Your task to perform on an android device: find snoozed emails in the gmail app Image 0: 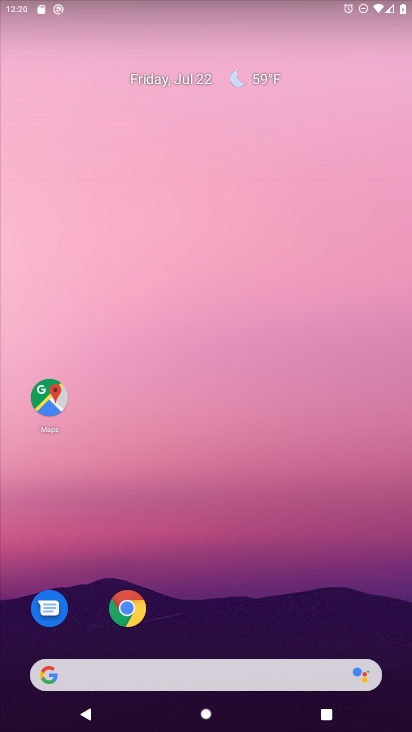
Step 0: drag from (374, 601) to (238, 82)
Your task to perform on an android device: find snoozed emails in the gmail app Image 1: 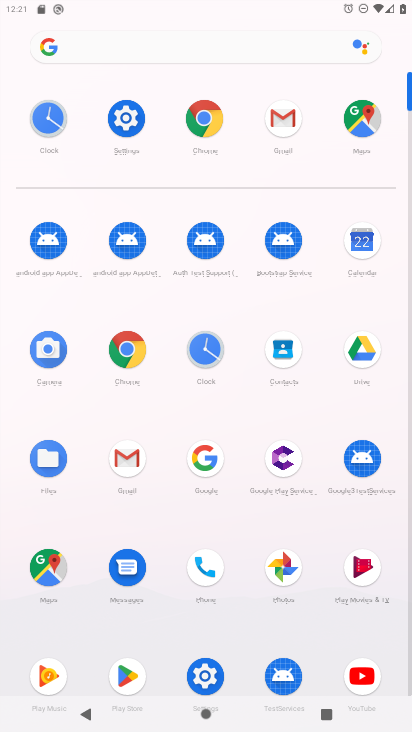
Step 1: click (119, 477)
Your task to perform on an android device: find snoozed emails in the gmail app Image 2: 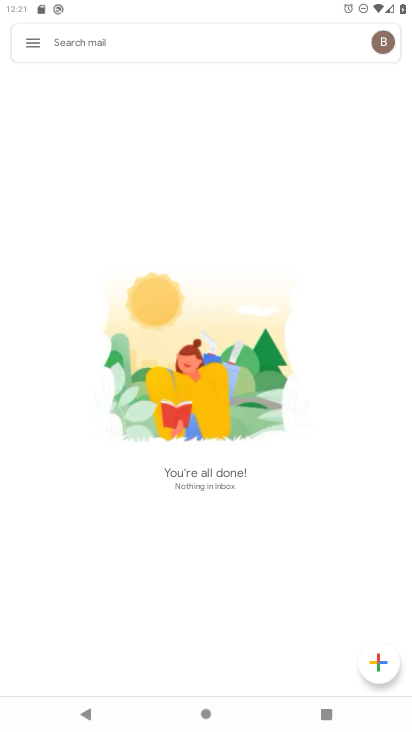
Step 2: click (27, 35)
Your task to perform on an android device: find snoozed emails in the gmail app Image 3: 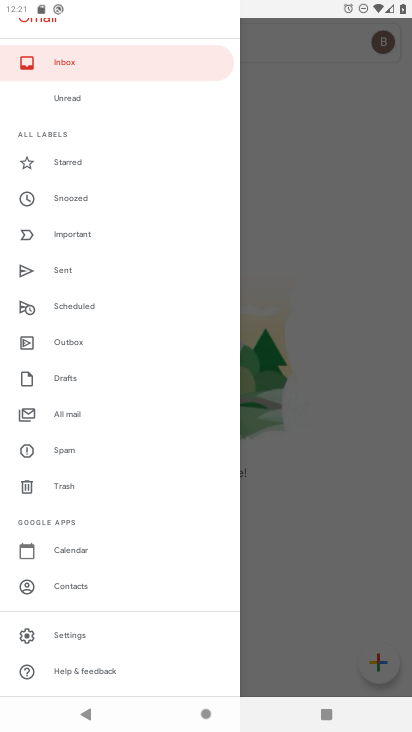
Step 3: click (67, 198)
Your task to perform on an android device: find snoozed emails in the gmail app Image 4: 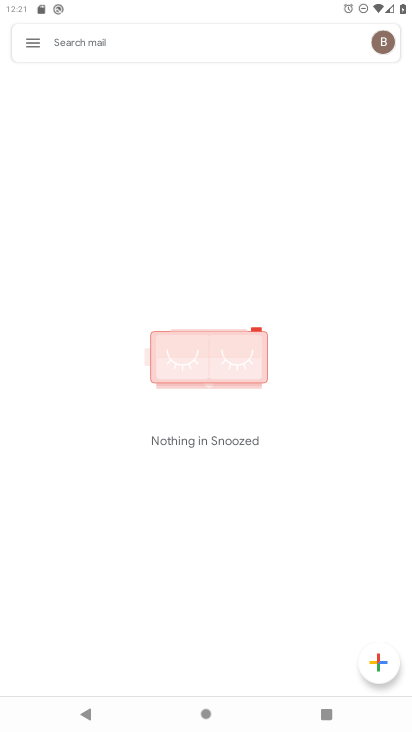
Step 4: task complete